Your task to perform on an android device: toggle pop-ups in chrome Image 0: 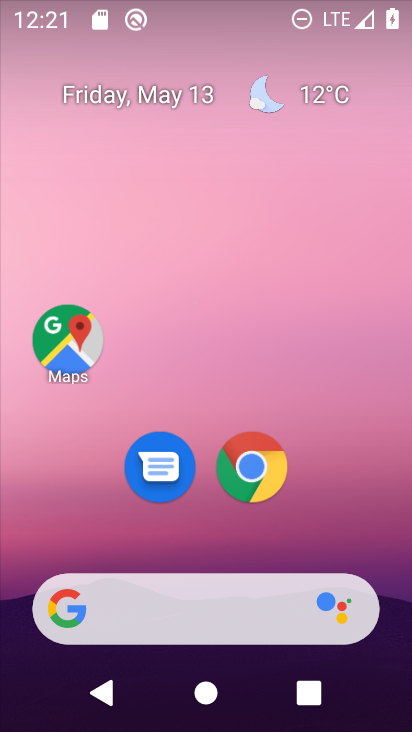
Step 0: drag from (329, 397) to (251, 32)
Your task to perform on an android device: toggle pop-ups in chrome Image 1: 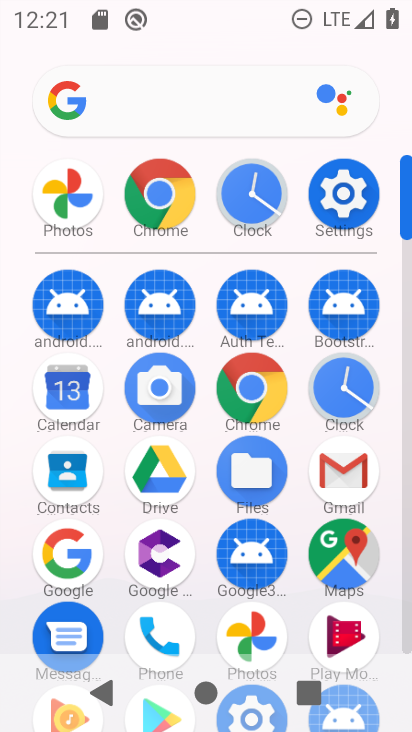
Step 1: click (155, 186)
Your task to perform on an android device: toggle pop-ups in chrome Image 2: 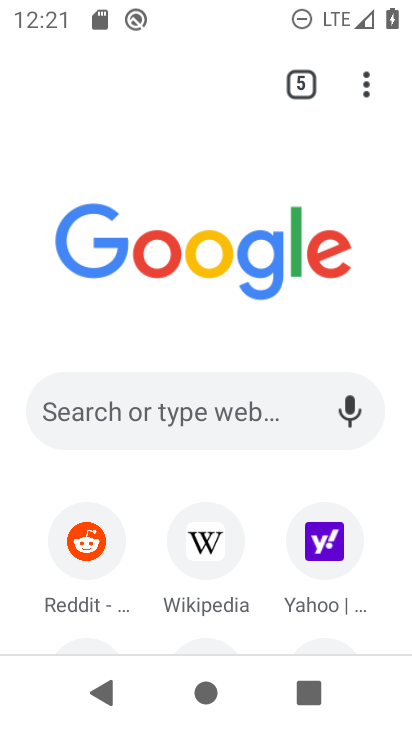
Step 2: drag from (361, 88) to (149, 508)
Your task to perform on an android device: toggle pop-ups in chrome Image 3: 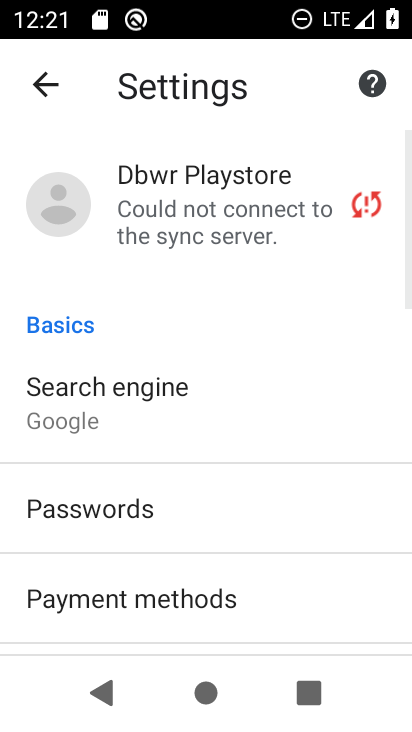
Step 3: drag from (241, 541) to (272, 216)
Your task to perform on an android device: toggle pop-ups in chrome Image 4: 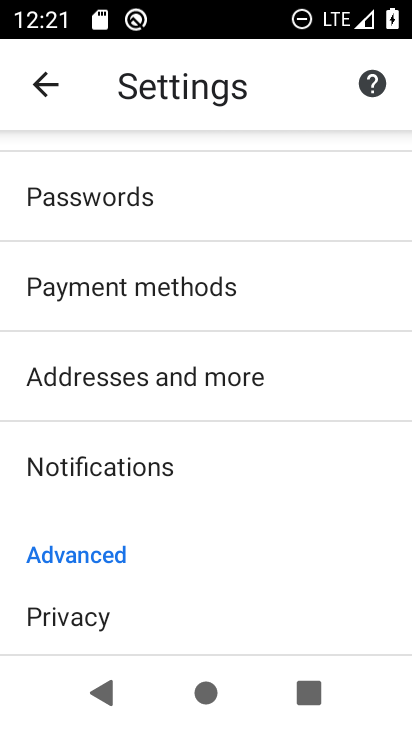
Step 4: drag from (196, 578) to (256, 209)
Your task to perform on an android device: toggle pop-ups in chrome Image 5: 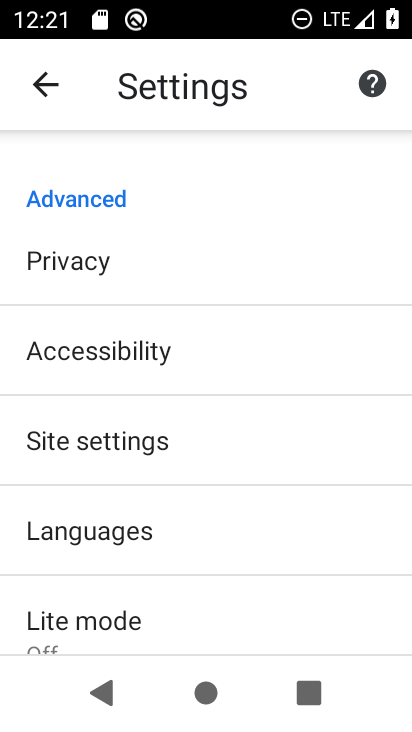
Step 5: drag from (214, 568) to (259, 221)
Your task to perform on an android device: toggle pop-ups in chrome Image 6: 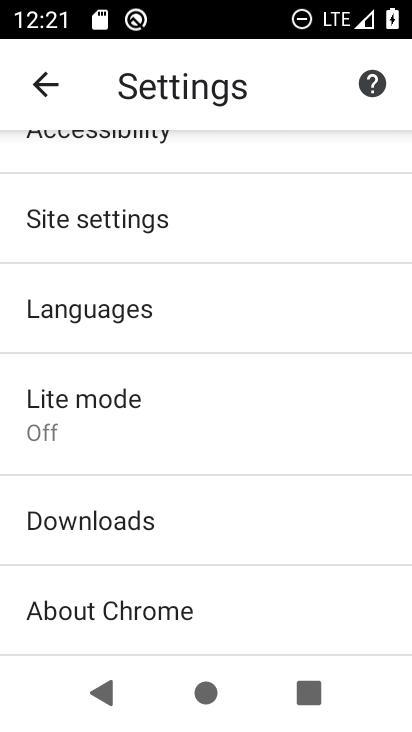
Step 6: drag from (217, 556) to (243, 316)
Your task to perform on an android device: toggle pop-ups in chrome Image 7: 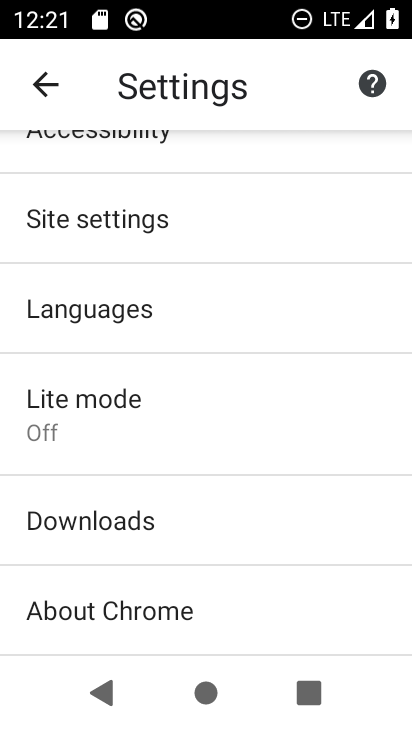
Step 7: click (139, 228)
Your task to perform on an android device: toggle pop-ups in chrome Image 8: 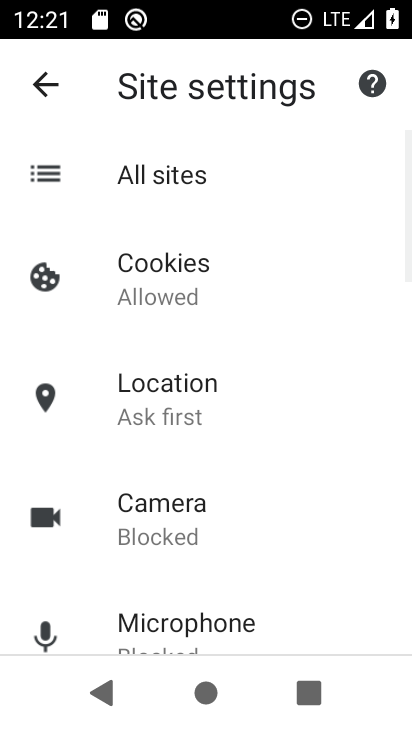
Step 8: drag from (282, 502) to (287, 233)
Your task to perform on an android device: toggle pop-ups in chrome Image 9: 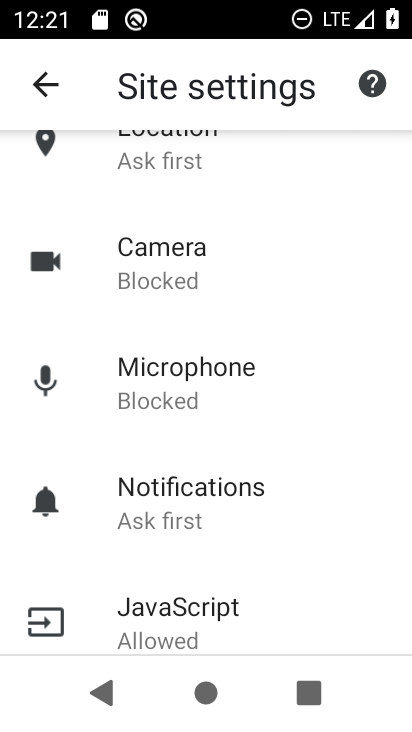
Step 9: drag from (241, 562) to (273, 231)
Your task to perform on an android device: toggle pop-ups in chrome Image 10: 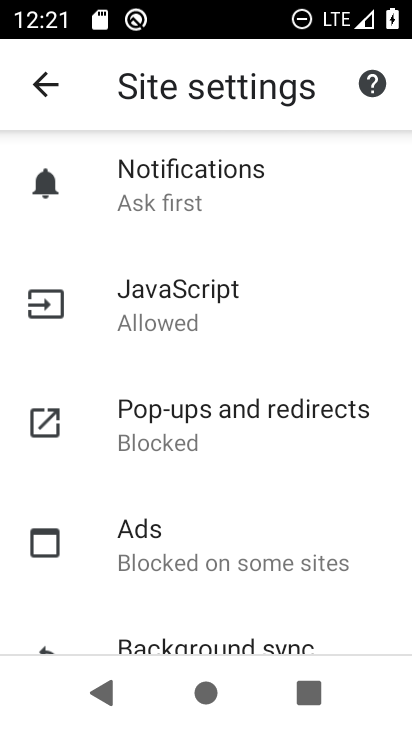
Step 10: click (222, 404)
Your task to perform on an android device: toggle pop-ups in chrome Image 11: 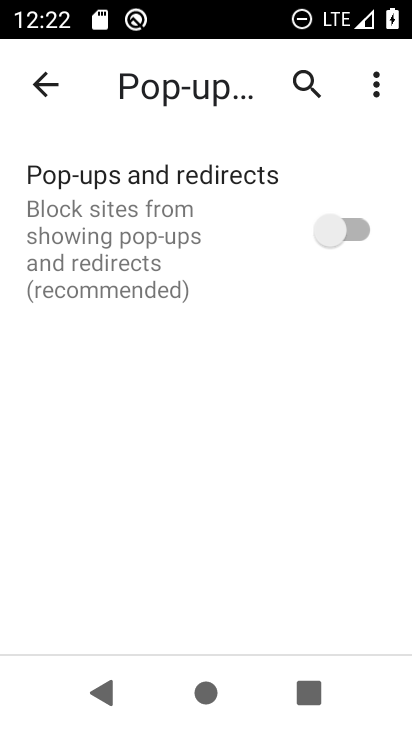
Step 11: click (340, 228)
Your task to perform on an android device: toggle pop-ups in chrome Image 12: 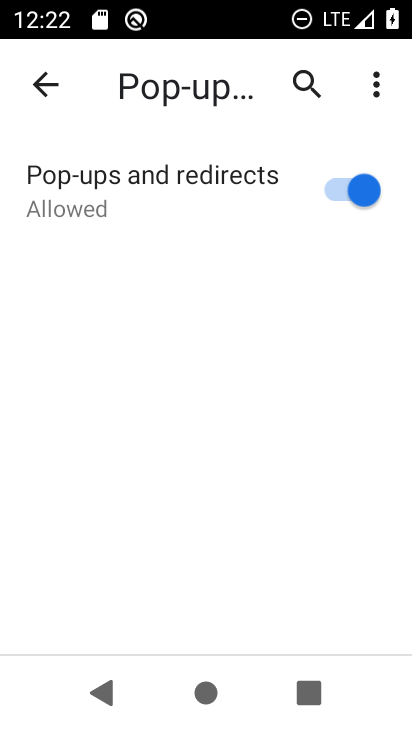
Step 12: task complete